Your task to perform on an android device: open a new tab in the chrome app Image 0: 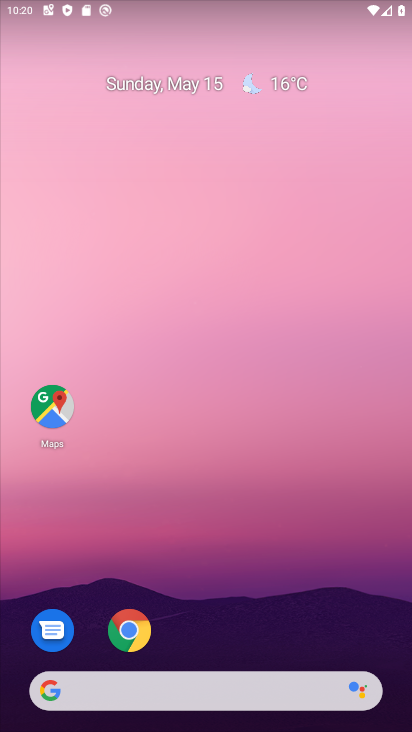
Step 0: click (142, 635)
Your task to perform on an android device: open a new tab in the chrome app Image 1: 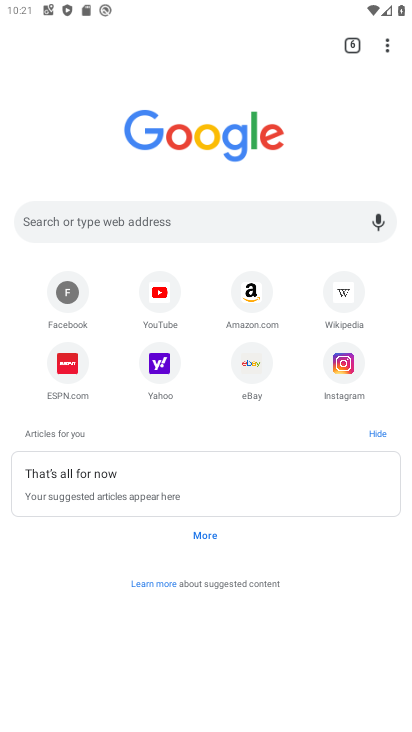
Step 1: click (348, 48)
Your task to perform on an android device: open a new tab in the chrome app Image 2: 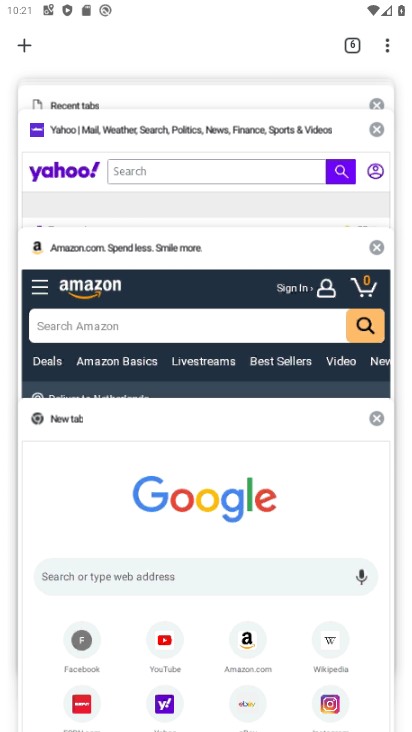
Step 2: click (24, 50)
Your task to perform on an android device: open a new tab in the chrome app Image 3: 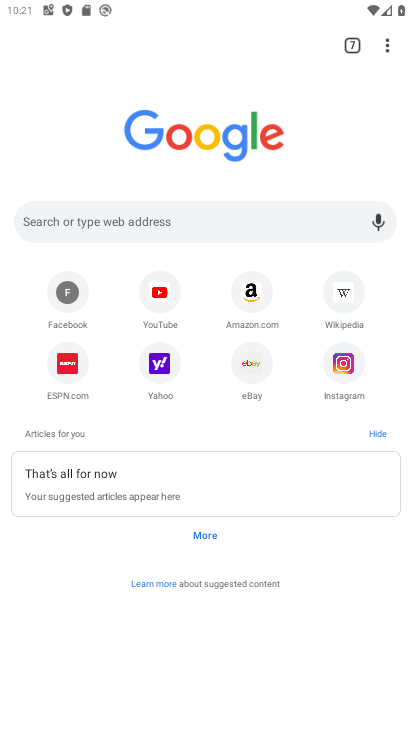
Step 3: task complete